Your task to perform on an android device: Go to location settings Image 0: 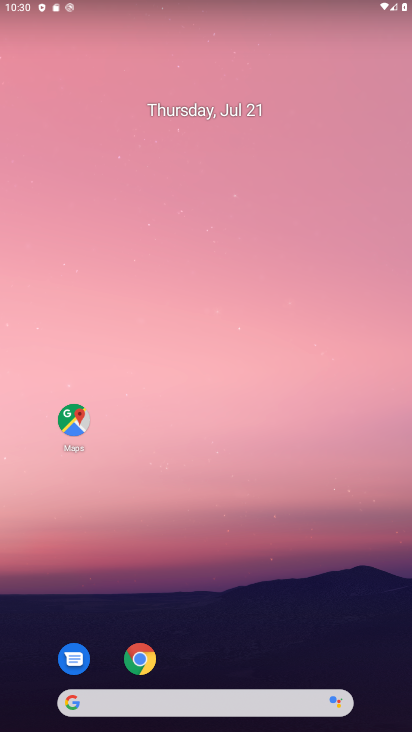
Step 0: drag from (231, 715) to (225, 43)
Your task to perform on an android device: Go to location settings Image 1: 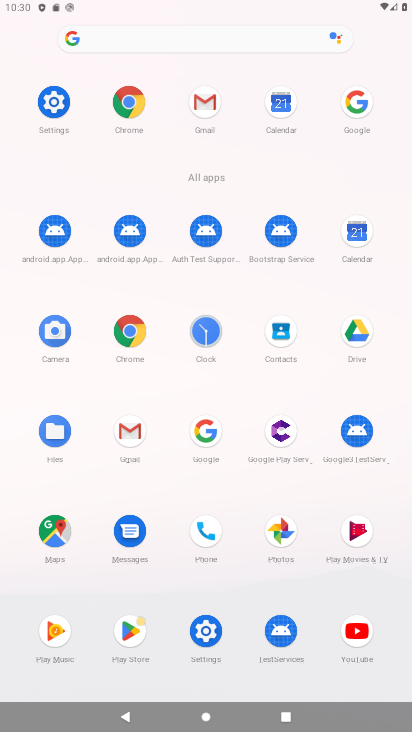
Step 1: click (50, 109)
Your task to perform on an android device: Go to location settings Image 2: 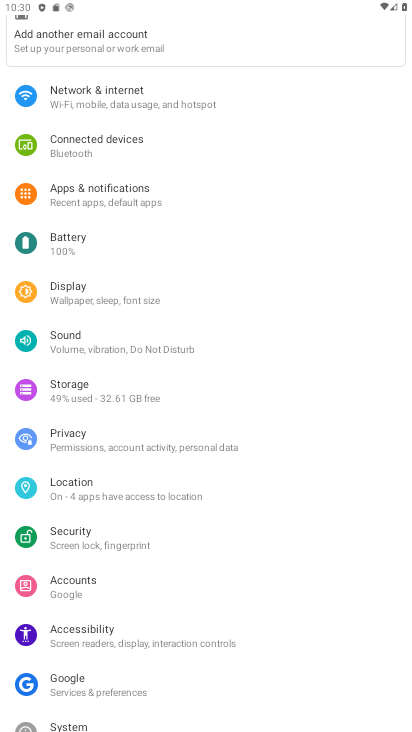
Step 2: click (75, 483)
Your task to perform on an android device: Go to location settings Image 3: 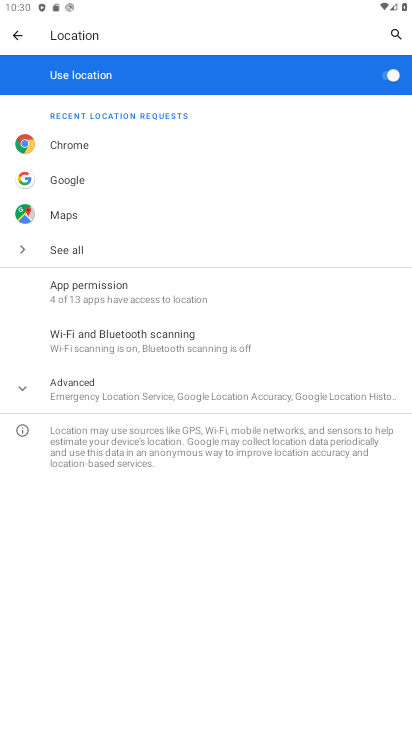
Step 3: task complete